Your task to perform on an android device: Go to Amazon Image 0: 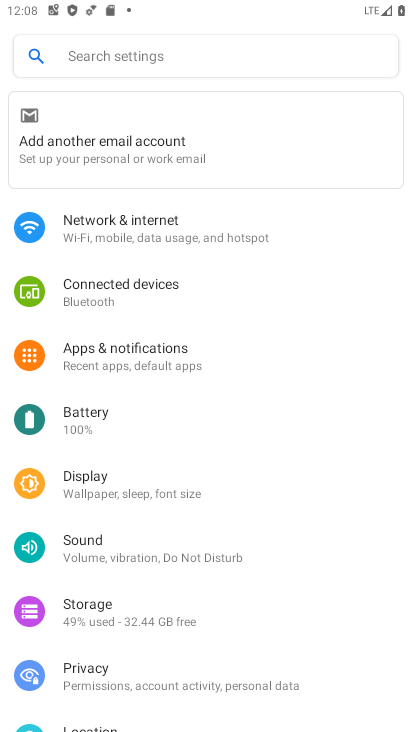
Step 0: press home button
Your task to perform on an android device: Go to Amazon Image 1: 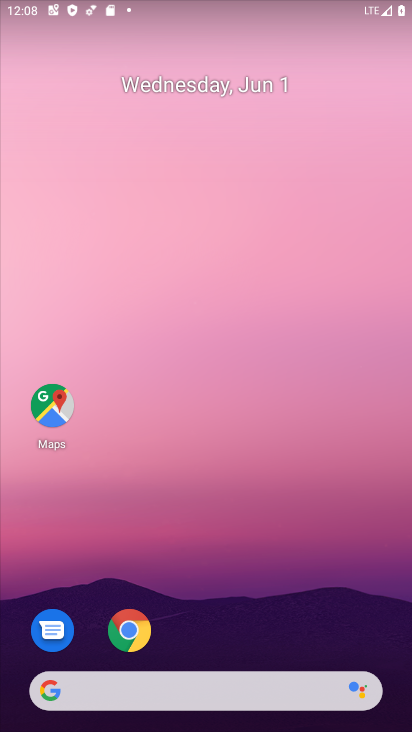
Step 1: click (186, 691)
Your task to perform on an android device: Go to Amazon Image 2: 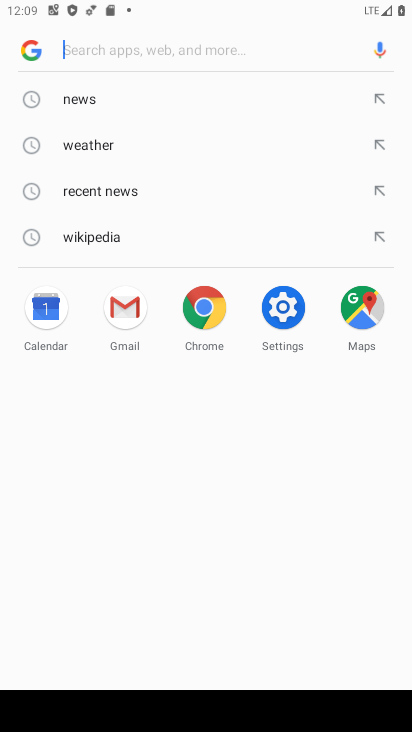
Step 2: type "Amazon"
Your task to perform on an android device: Go to Amazon Image 3: 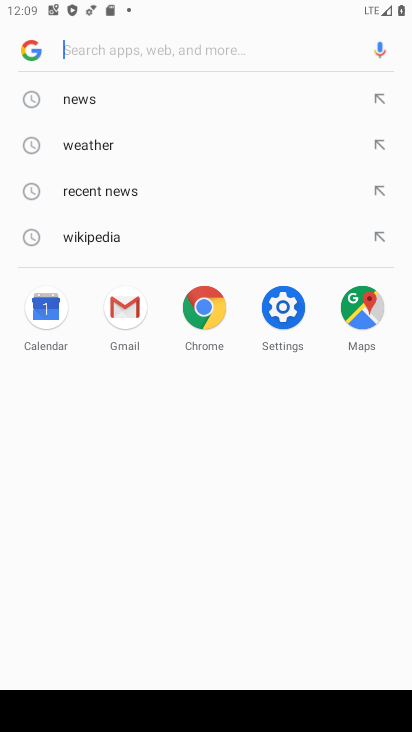
Step 3: click (179, 49)
Your task to perform on an android device: Go to Amazon Image 4: 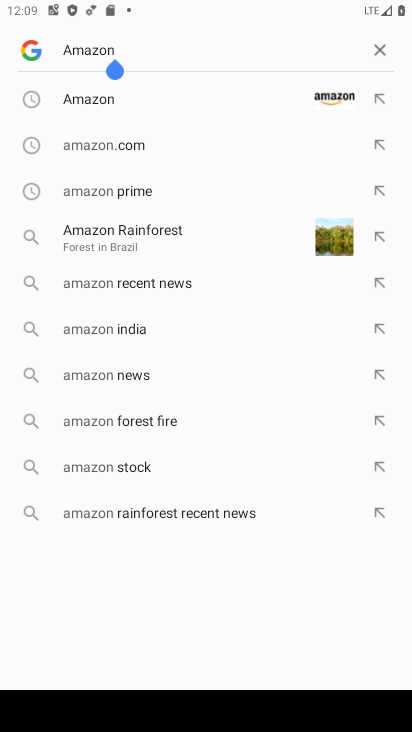
Step 4: click (115, 103)
Your task to perform on an android device: Go to Amazon Image 5: 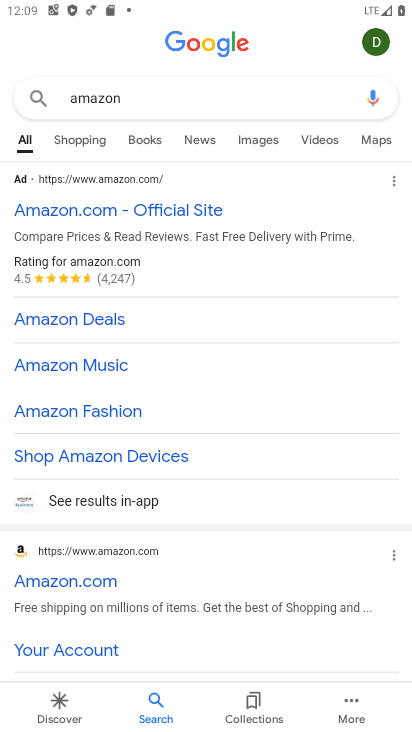
Step 5: click (67, 579)
Your task to perform on an android device: Go to Amazon Image 6: 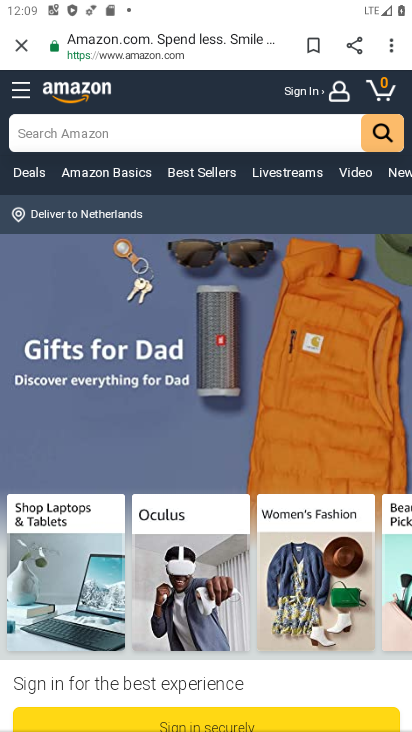
Step 6: task complete